Your task to perform on an android device: Open Android settings Image 0: 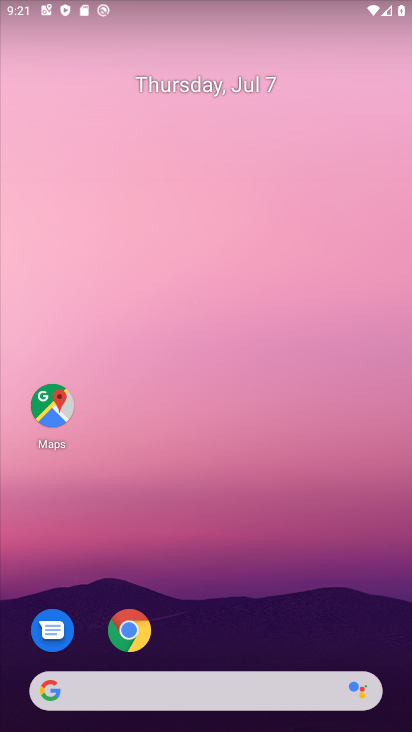
Step 0: drag from (209, 633) to (256, 411)
Your task to perform on an android device: Open Android settings Image 1: 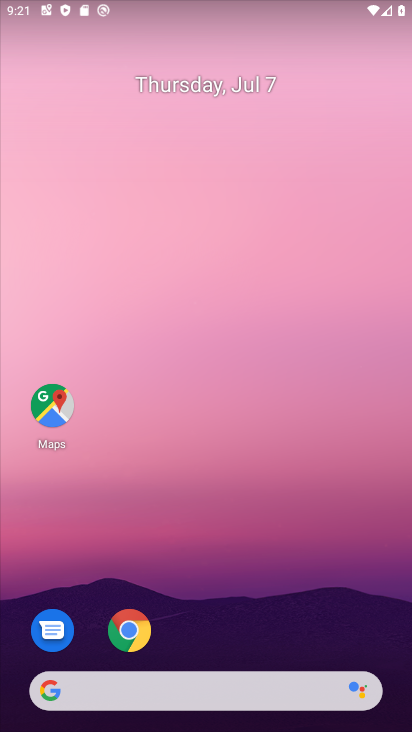
Step 1: drag from (196, 637) to (221, 287)
Your task to perform on an android device: Open Android settings Image 2: 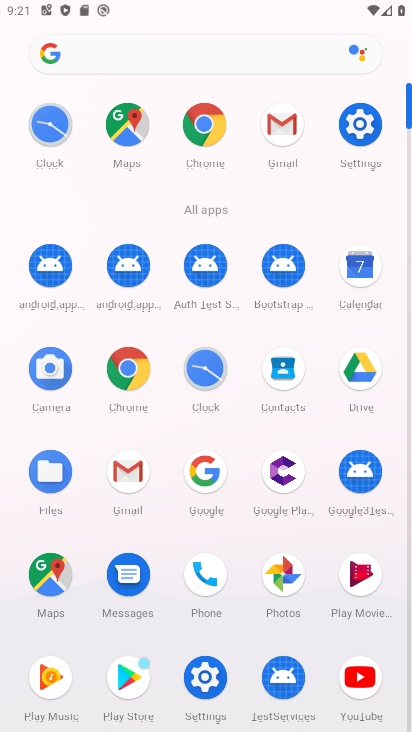
Step 2: click (199, 671)
Your task to perform on an android device: Open Android settings Image 3: 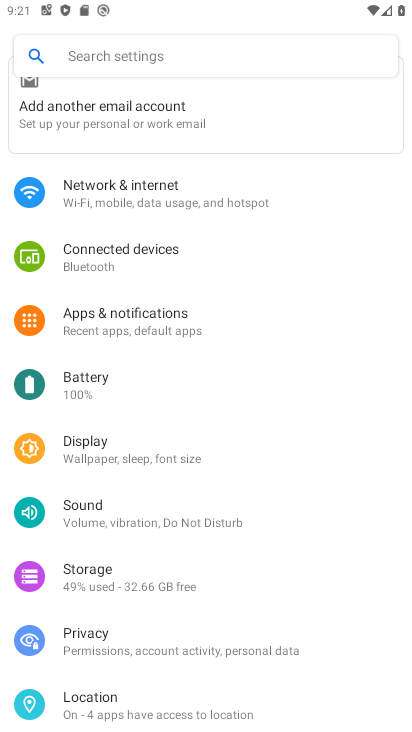
Step 3: task complete